Your task to perform on an android device: check google app version Image 0: 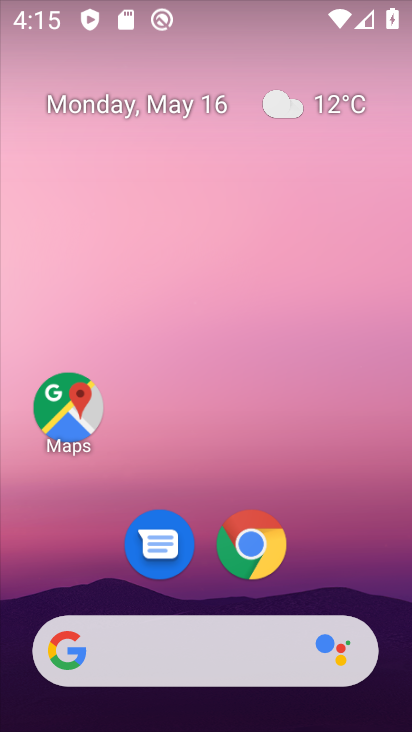
Step 0: drag from (314, 578) to (245, 177)
Your task to perform on an android device: check google app version Image 1: 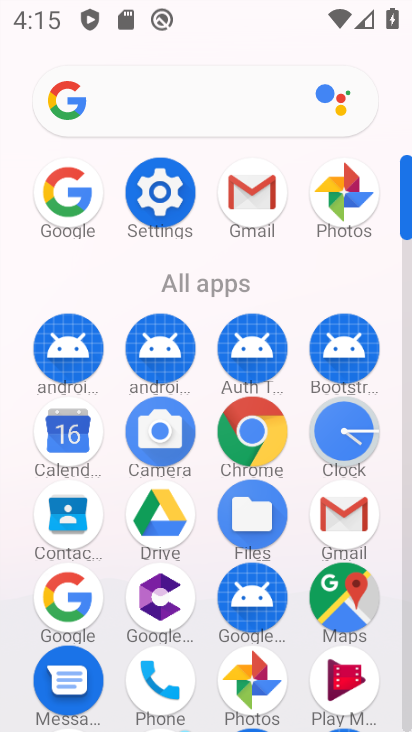
Step 1: click (68, 194)
Your task to perform on an android device: check google app version Image 2: 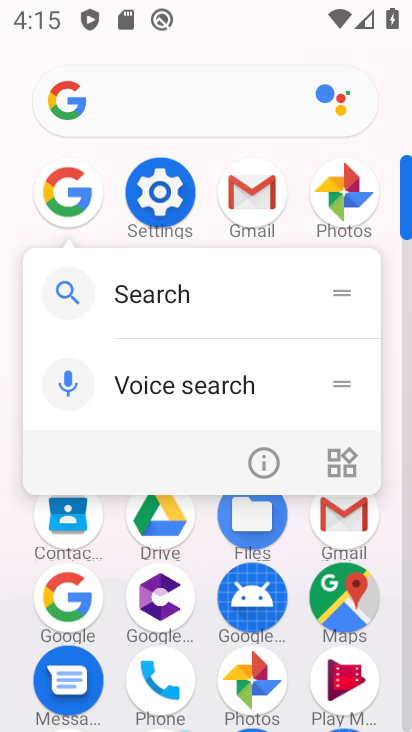
Step 2: click (266, 464)
Your task to perform on an android device: check google app version Image 3: 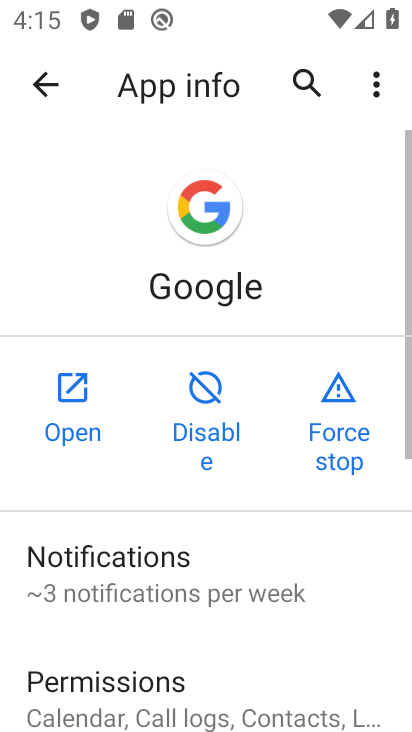
Step 3: drag from (205, 549) to (256, 320)
Your task to perform on an android device: check google app version Image 4: 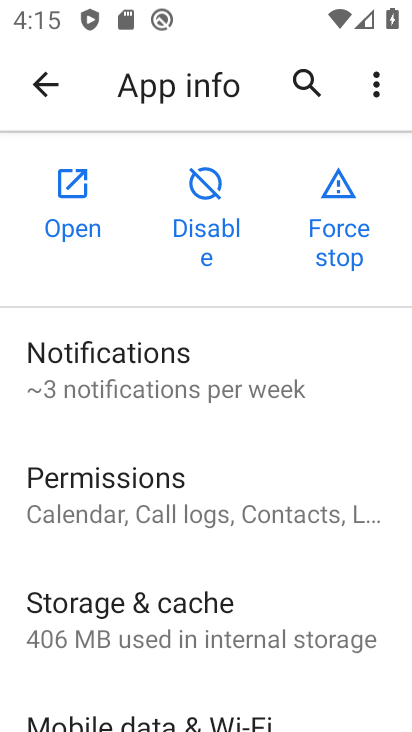
Step 4: drag from (187, 482) to (254, 336)
Your task to perform on an android device: check google app version Image 5: 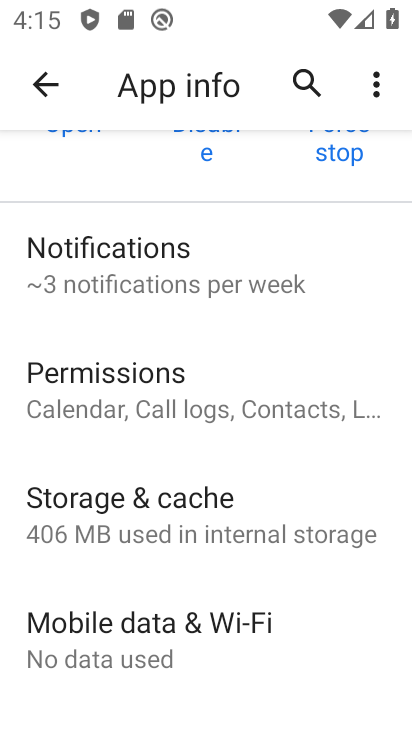
Step 5: drag from (199, 463) to (237, 311)
Your task to perform on an android device: check google app version Image 6: 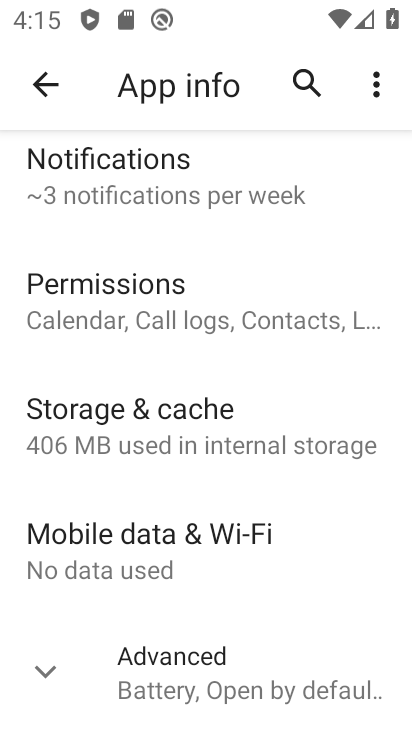
Step 6: drag from (128, 494) to (229, 342)
Your task to perform on an android device: check google app version Image 7: 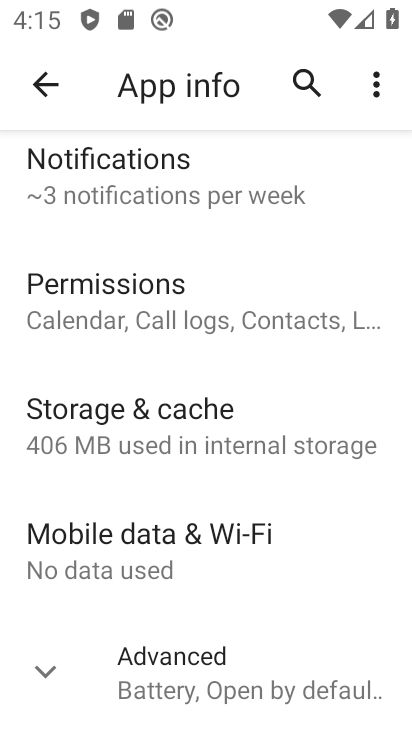
Step 7: click (182, 664)
Your task to perform on an android device: check google app version Image 8: 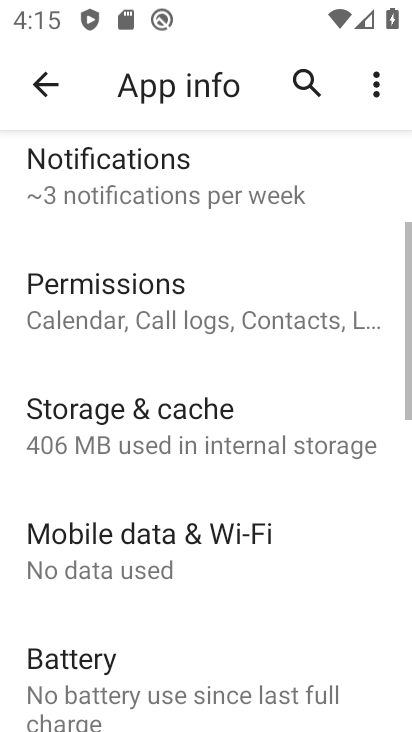
Step 8: task complete